Your task to perform on an android device: Open sound settings Image 0: 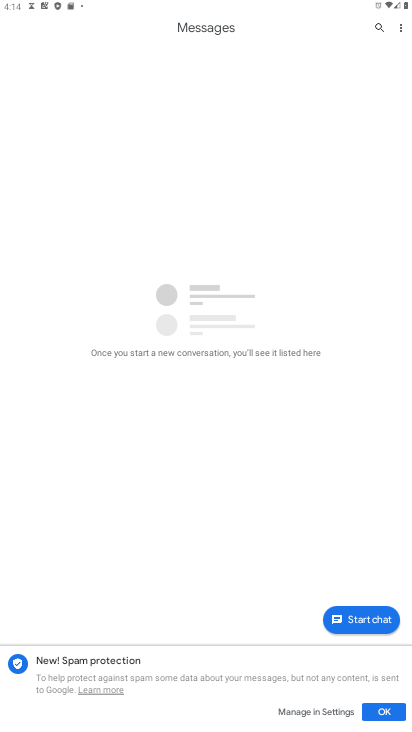
Step 0: press home button
Your task to perform on an android device: Open sound settings Image 1: 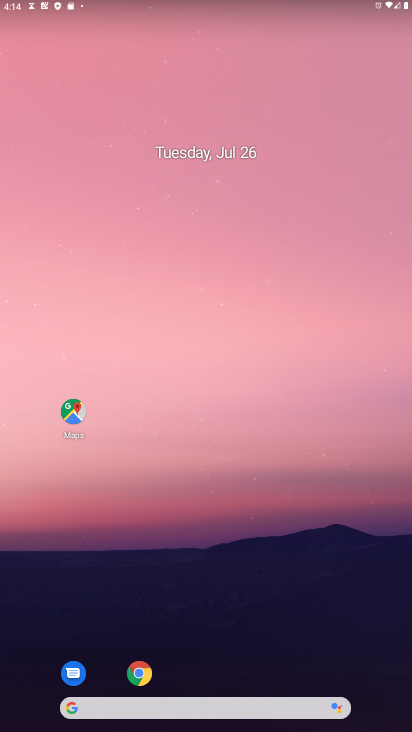
Step 1: drag from (171, 700) to (150, 12)
Your task to perform on an android device: Open sound settings Image 2: 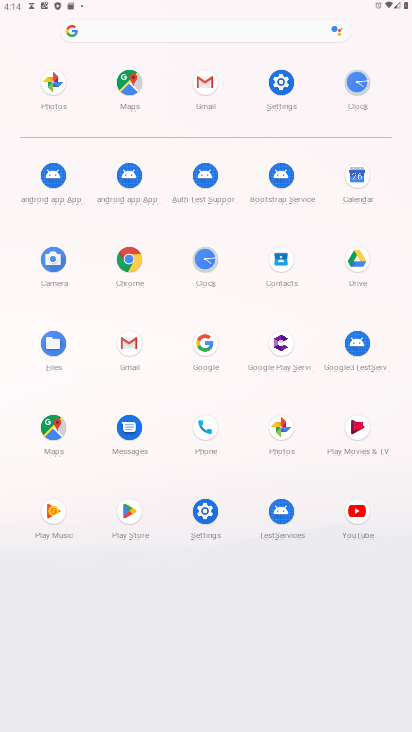
Step 2: click (279, 82)
Your task to perform on an android device: Open sound settings Image 3: 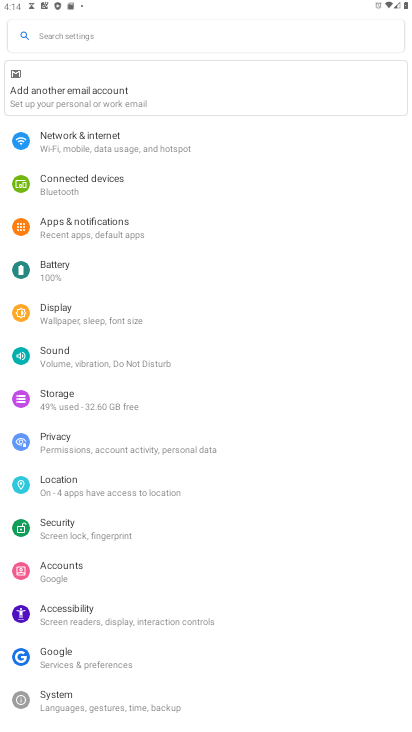
Step 3: click (72, 357)
Your task to perform on an android device: Open sound settings Image 4: 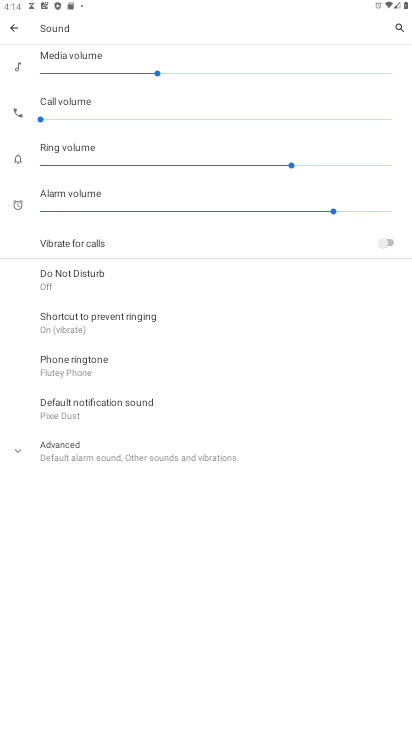
Step 4: task complete